Your task to perform on an android device: Open Maps and search for coffee Image 0: 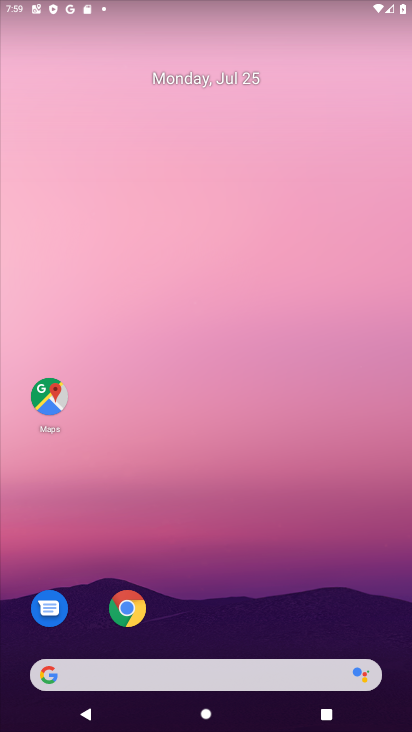
Step 0: drag from (221, 650) to (255, 137)
Your task to perform on an android device: Open Maps and search for coffee Image 1: 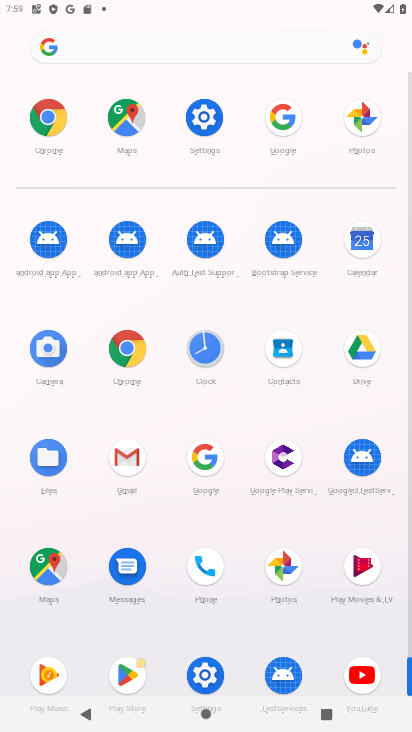
Step 1: click (58, 576)
Your task to perform on an android device: Open Maps and search for coffee Image 2: 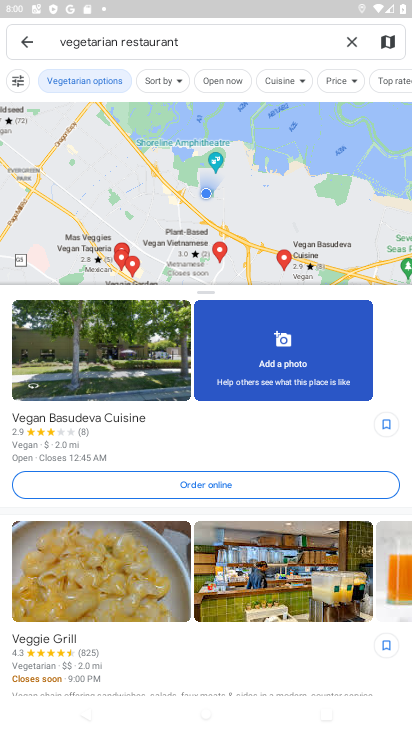
Step 2: click (351, 47)
Your task to perform on an android device: Open Maps and search for coffee Image 3: 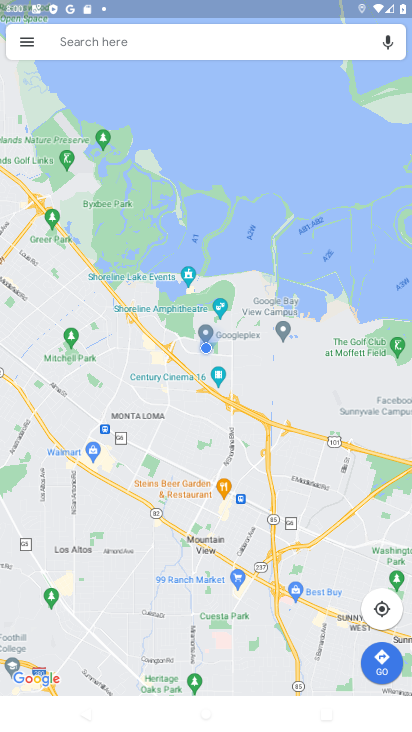
Step 3: click (245, 51)
Your task to perform on an android device: Open Maps and search for coffee Image 4: 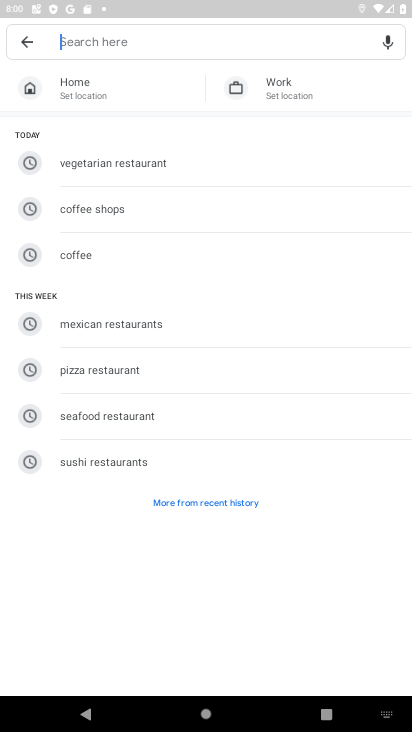
Step 4: click (99, 252)
Your task to perform on an android device: Open Maps and search for coffee Image 5: 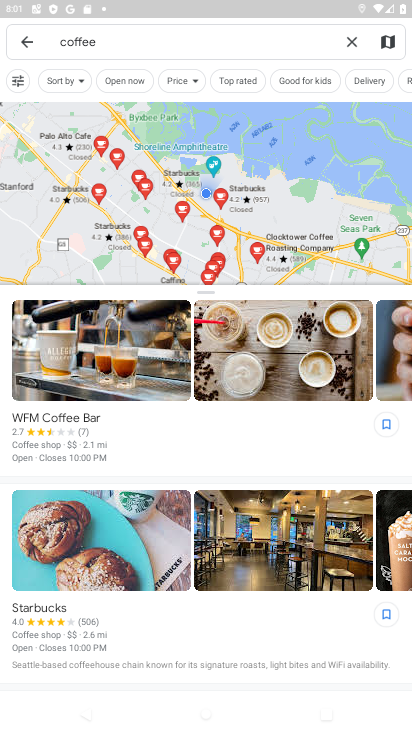
Step 5: task complete